Your task to perform on an android device: set default search engine in the chrome app Image 0: 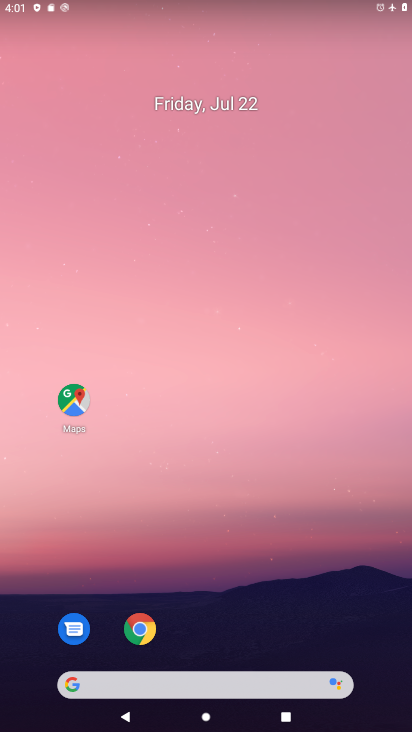
Step 0: drag from (272, 639) to (210, 3)
Your task to perform on an android device: set default search engine in the chrome app Image 1: 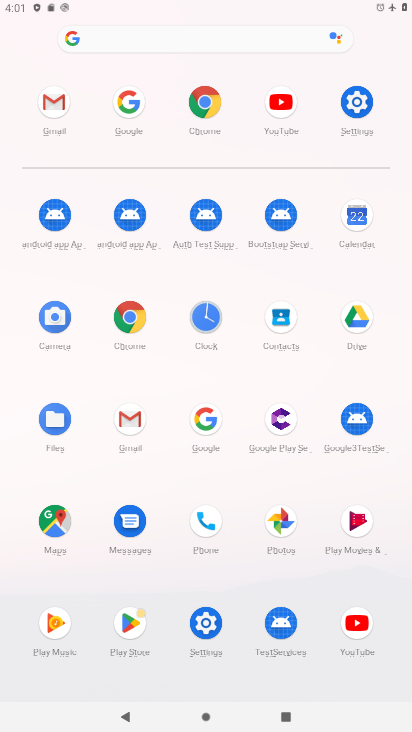
Step 1: click (204, 104)
Your task to perform on an android device: set default search engine in the chrome app Image 2: 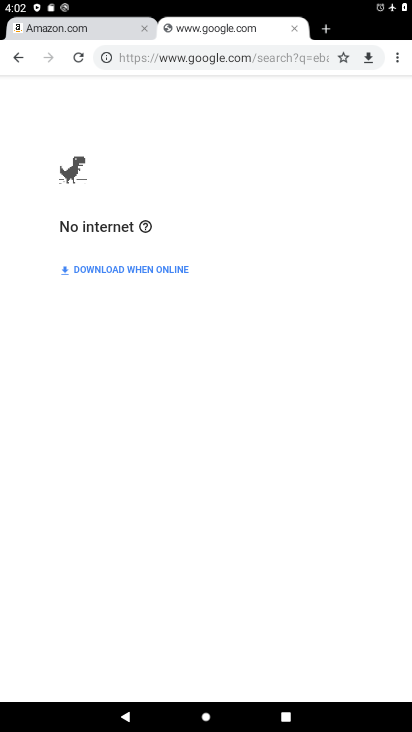
Step 2: drag from (397, 49) to (289, 392)
Your task to perform on an android device: set default search engine in the chrome app Image 3: 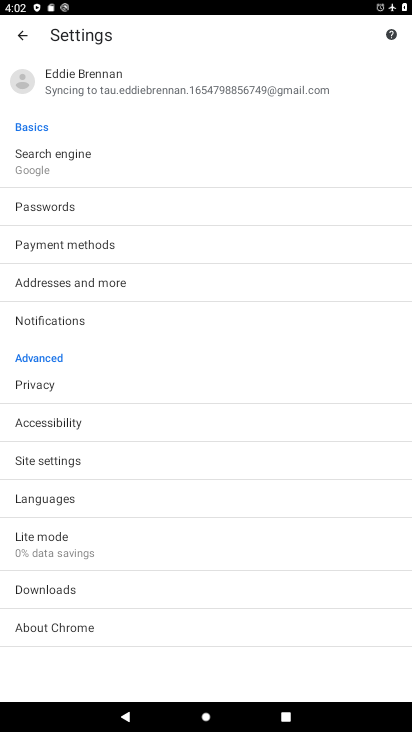
Step 3: click (125, 166)
Your task to perform on an android device: set default search engine in the chrome app Image 4: 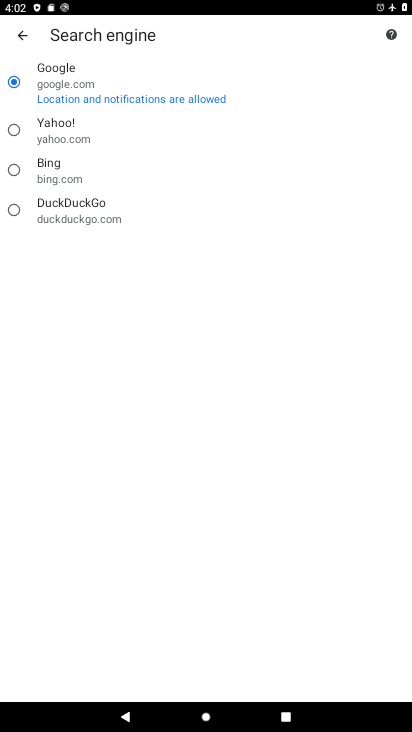
Step 4: task complete